Your task to perform on an android device: toggle show notifications on the lock screen Image 0: 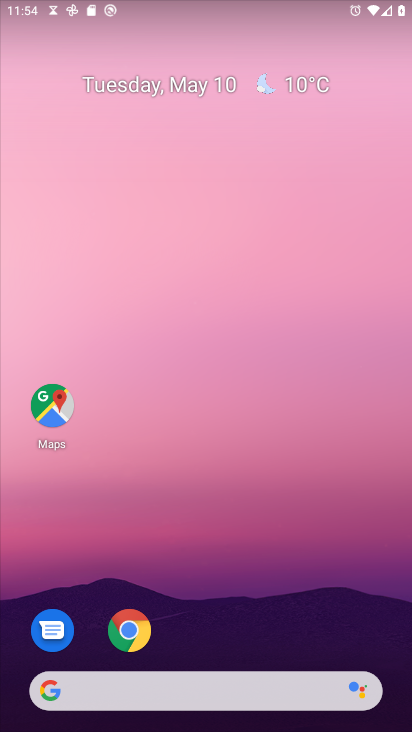
Step 0: drag from (257, 607) to (227, 104)
Your task to perform on an android device: toggle show notifications on the lock screen Image 1: 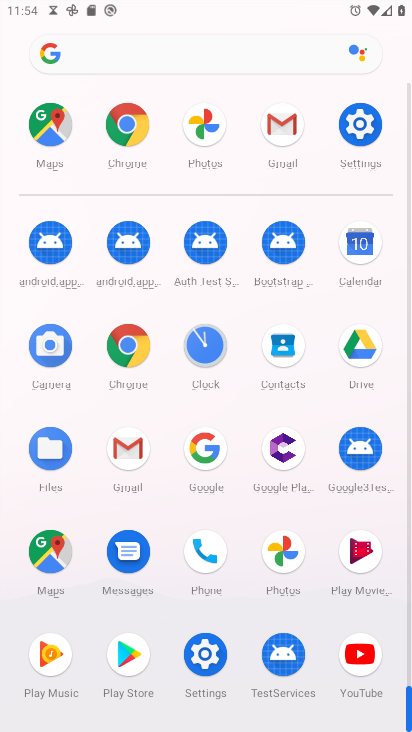
Step 1: click (357, 127)
Your task to perform on an android device: toggle show notifications on the lock screen Image 2: 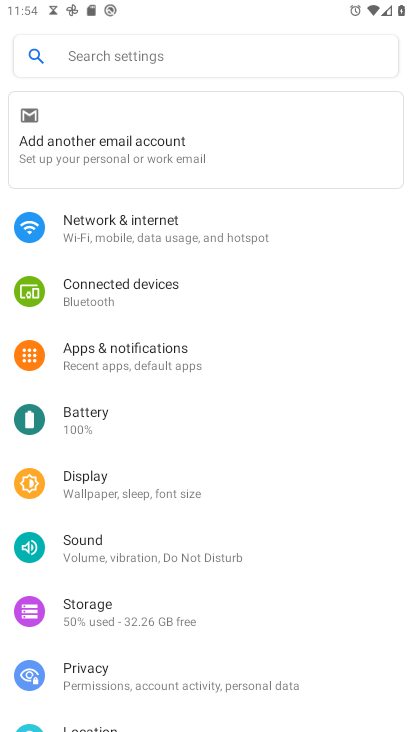
Step 2: click (114, 363)
Your task to perform on an android device: toggle show notifications on the lock screen Image 3: 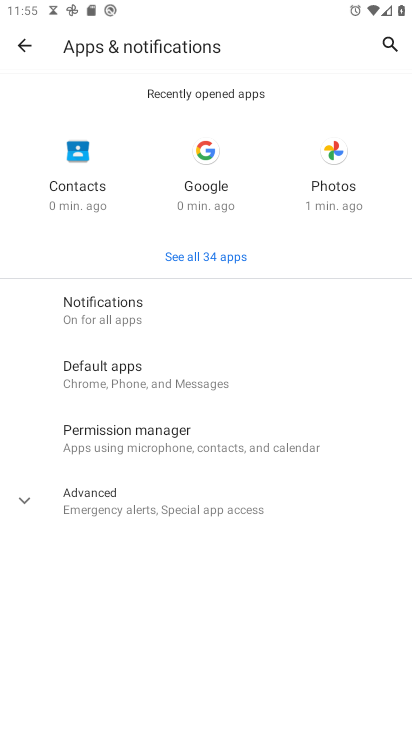
Step 3: click (120, 317)
Your task to perform on an android device: toggle show notifications on the lock screen Image 4: 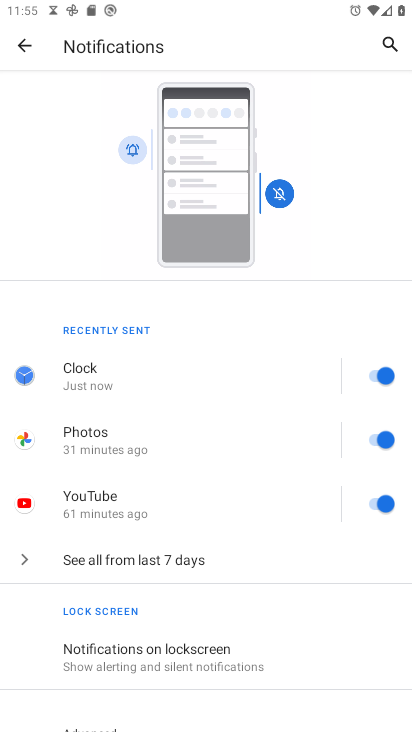
Step 4: click (177, 664)
Your task to perform on an android device: toggle show notifications on the lock screen Image 5: 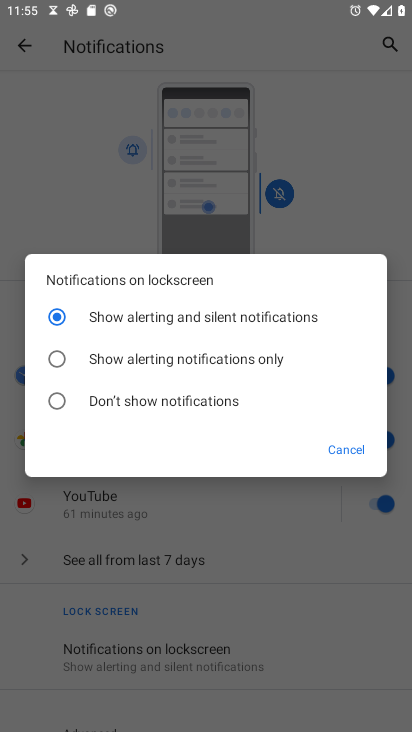
Step 5: click (54, 356)
Your task to perform on an android device: toggle show notifications on the lock screen Image 6: 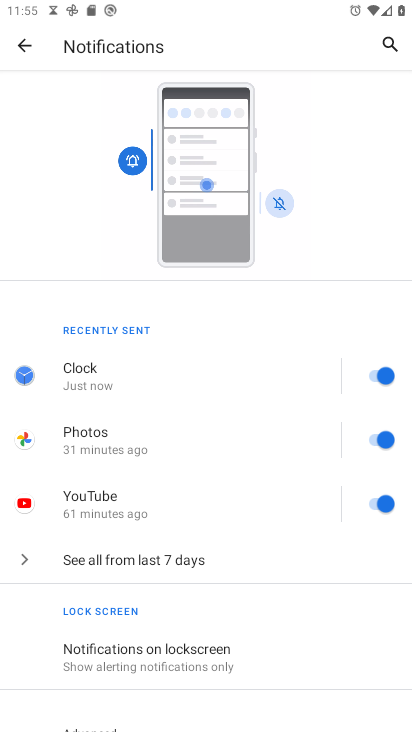
Step 6: task complete